Your task to perform on an android device: Is it going to rain today? Image 0: 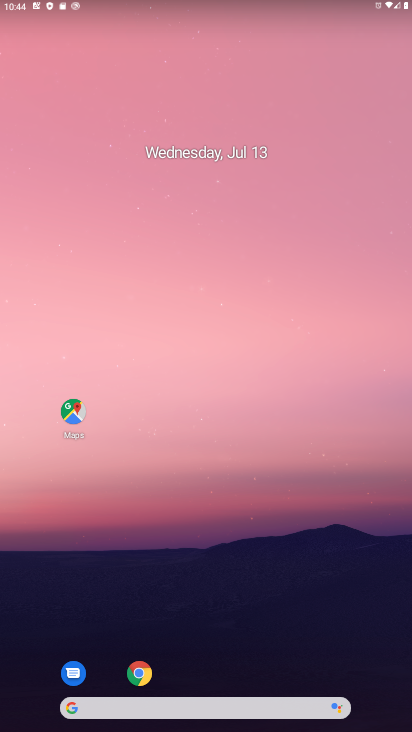
Step 0: click (147, 700)
Your task to perform on an android device: Is it going to rain today? Image 1: 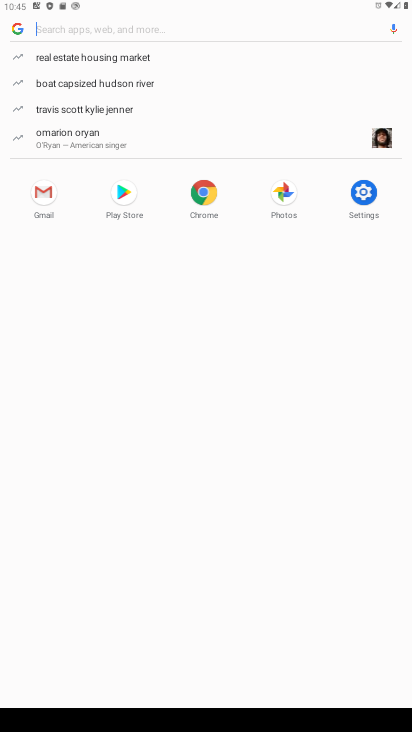
Step 1: type "weather"
Your task to perform on an android device: Is it going to rain today? Image 2: 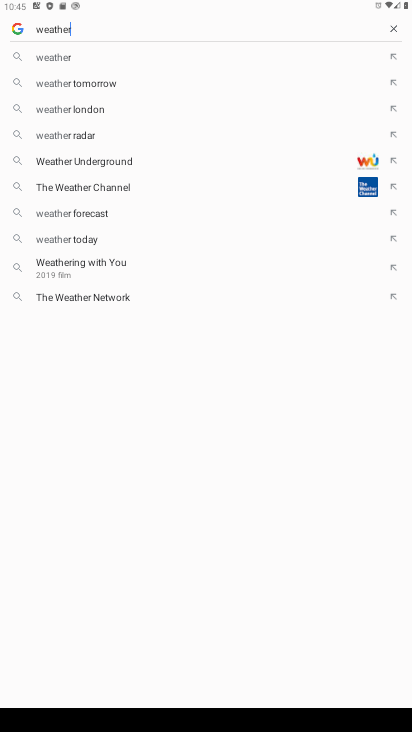
Step 2: type ""
Your task to perform on an android device: Is it going to rain today? Image 3: 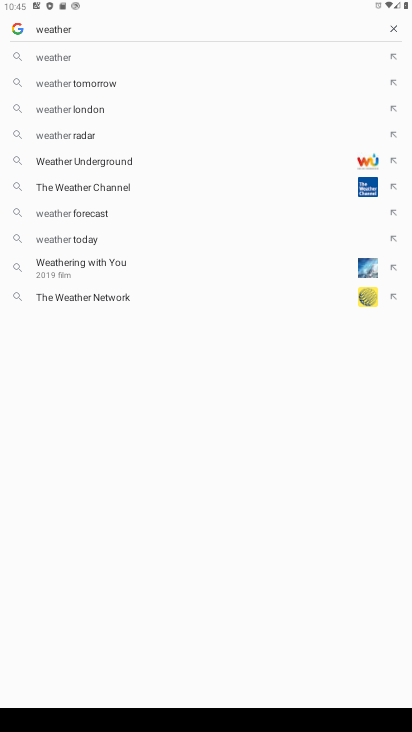
Step 3: click (57, 63)
Your task to perform on an android device: Is it going to rain today? Image 4: 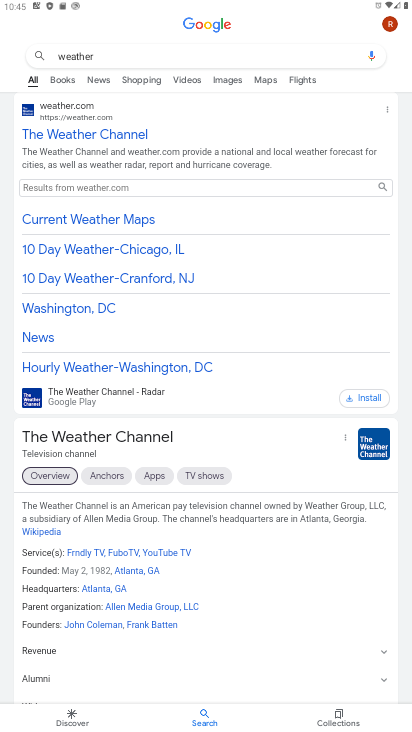
Step 4: task complete